Your task to perform on an android device: Open Google Maps Image 0: 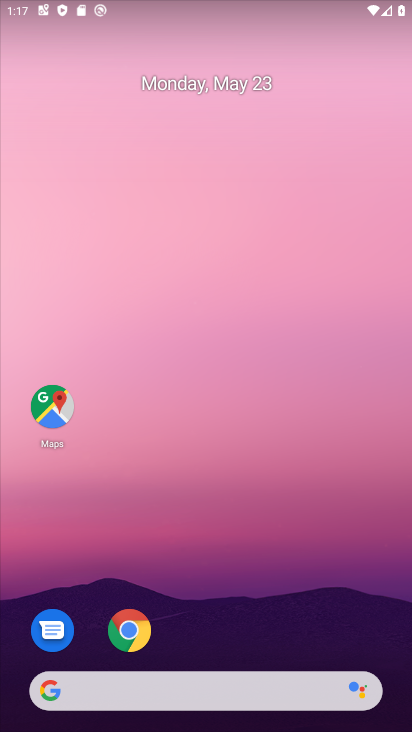
Step 0: drag from (287, 592) to (320, 181)
Your task to perform on an android device: Open Google Maps Image 1: 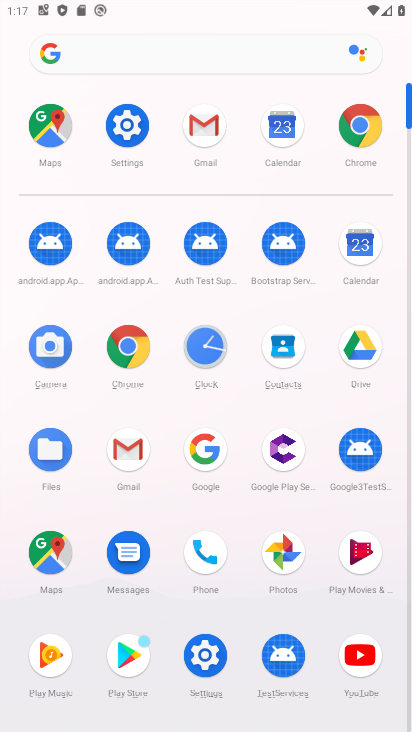
Step 1: click (66, 551)
Your task to perform on an android device: Open Google Maps Image 2: 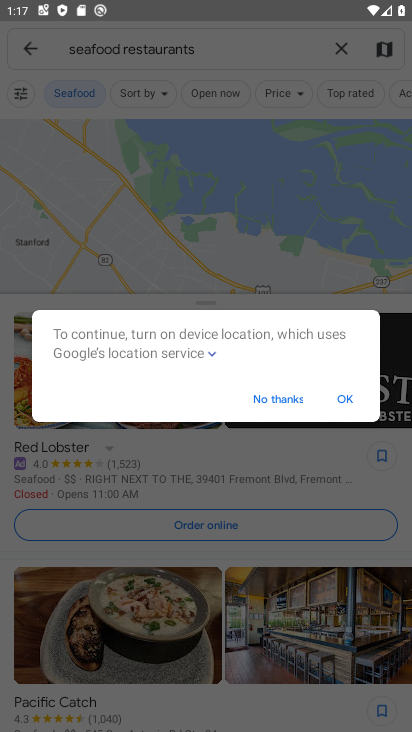
Step 2: click (296, 402)
Your task to perform on an android device: Open Google Maps Image 3: 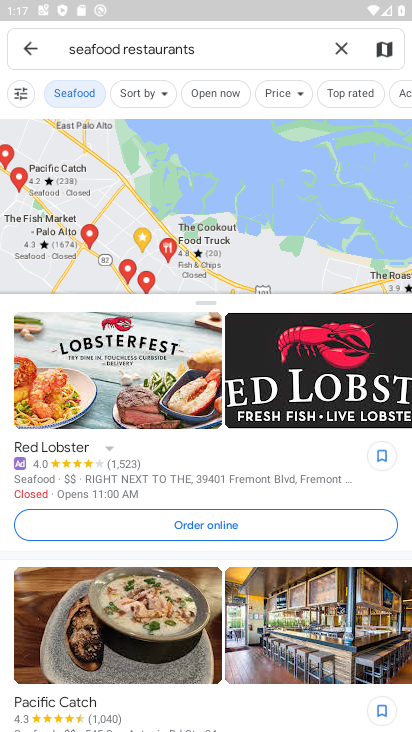
Step 3: task complete